Your task to perform on an android device: Open privacy settings Image 0: 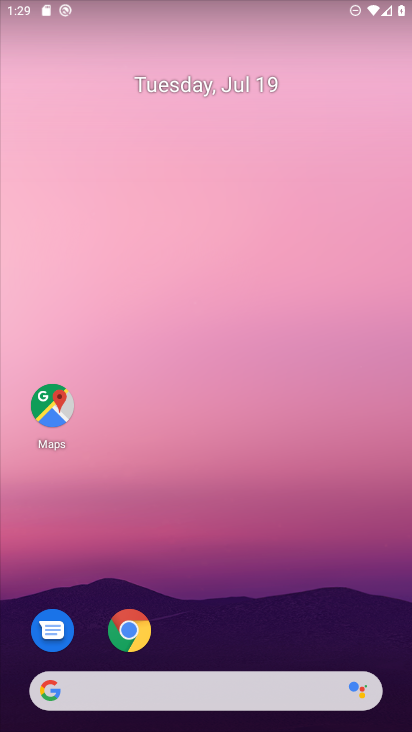
Step 0: press home button
Your task to perform on an android device: Open privacy settings Image 1: 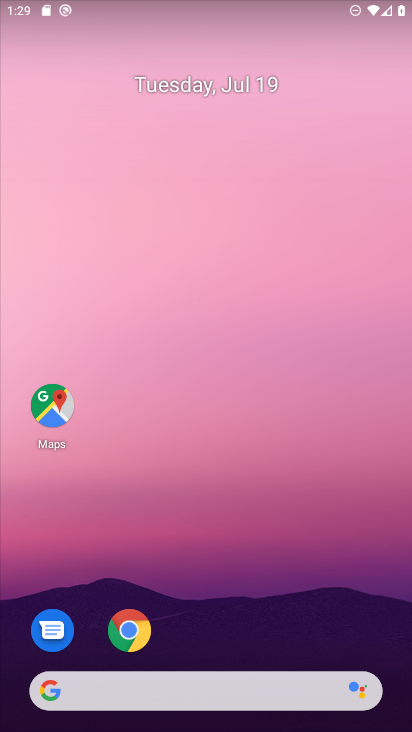
Step 1: drag from (165, 677) to (288, 221)
Your task to perform on an android device: Open privacy settings Image 2: 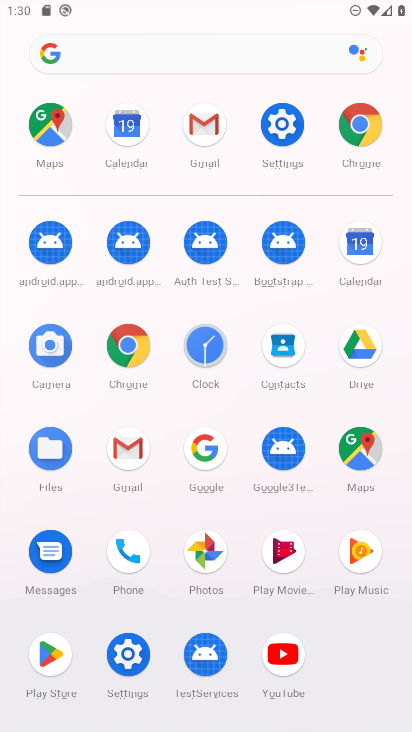
Step 2: click (274, 121)
Your task to perform on an android device: Open privacy settings Image 3: 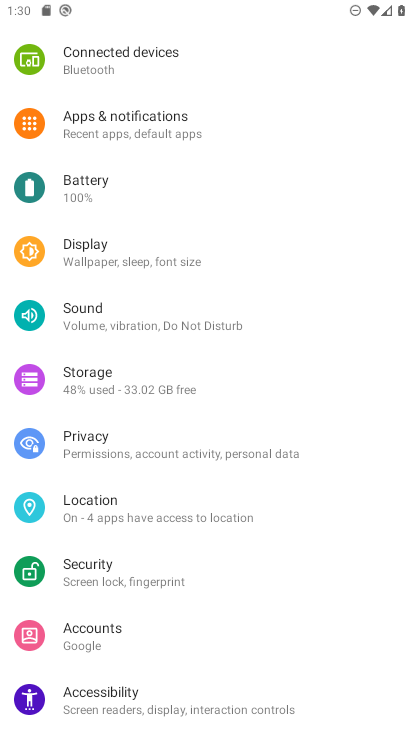
Step 3: click (128, 442)
Your task to perform on an android device: Open privacy settings Image 4: 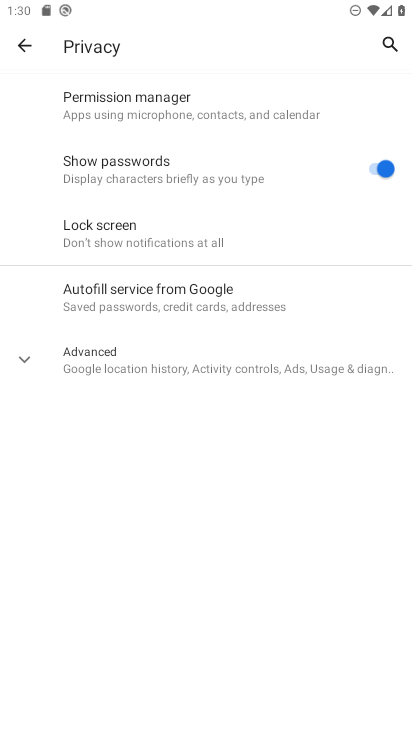
Step 4: task complete